Your task to perform on an android device: allow cookies in the chrome app Image 0: 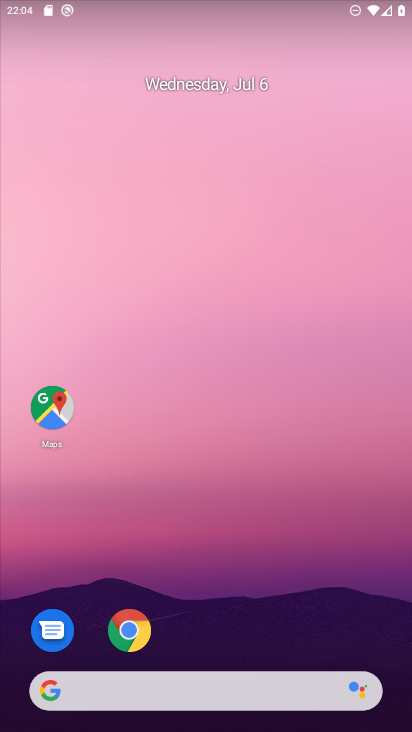
Step 0: drag from (349, 660) to (277, 731)
Your task to perform on an android device: allow cookies in the chrome app Image 1: 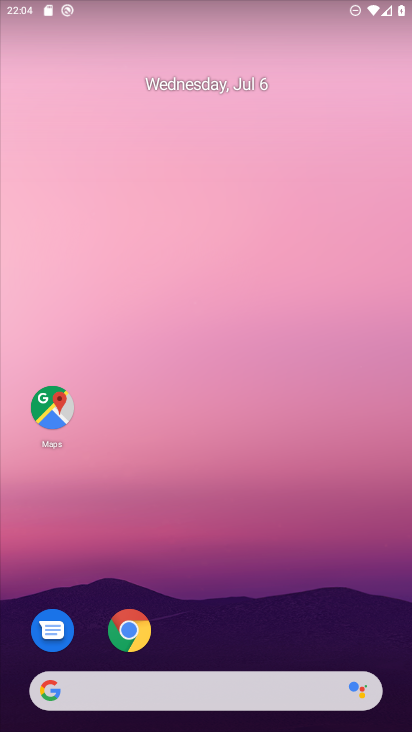
Step 1: click (110, 615)
Your task to perform on an android device: allow cookies in the chrome app Image 2: 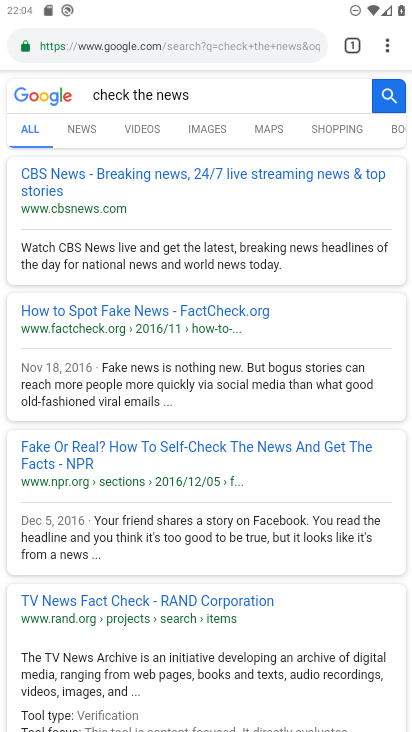
Step 2: click (388, 49)
Your task to perform on an android device: allow cookies in the chrome app Image 3: 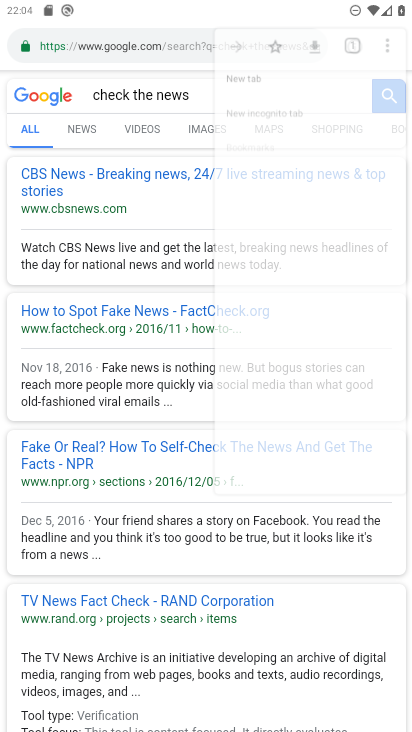
Step 3: drag from (388, 49) to (198, 499)
Your task to perform on an android device: allow cookies in the chrome app Image 4: 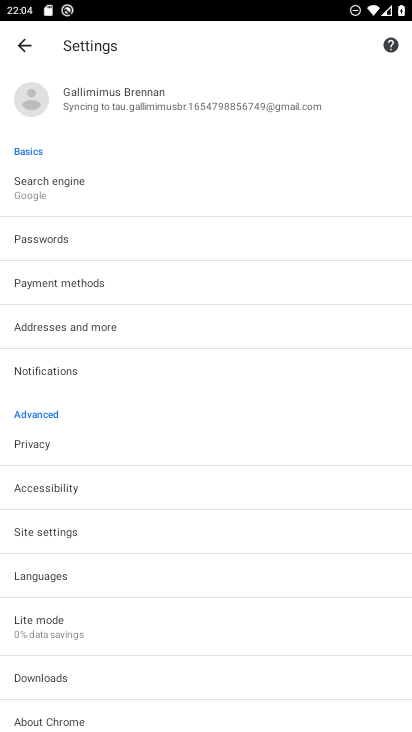
Step 4: click (47, 525)
Your task to perform on an android device: allow cookies in the chrome app Image 5: 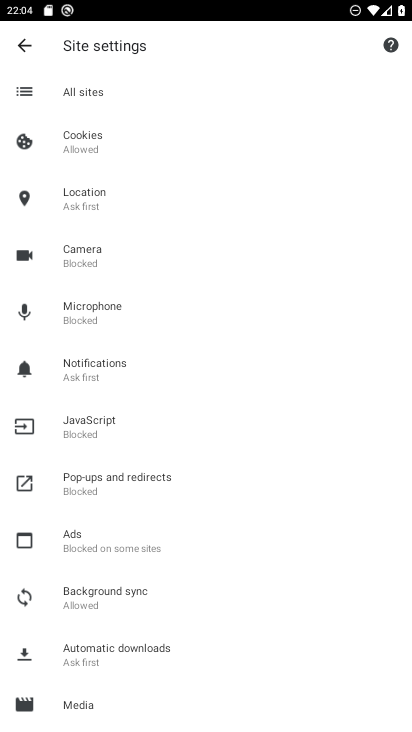
Step 5: click (100, 142)
Your task to perform on an android device: allow cookies in the chrome app Image 6: 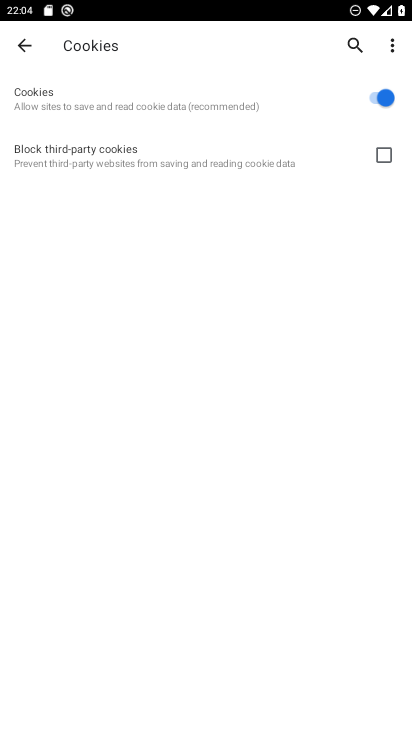
Step 6: task complete